Your task to perform on an android device: open app "DoorDash - Food Delivery" (install if not already installed) Image 0: 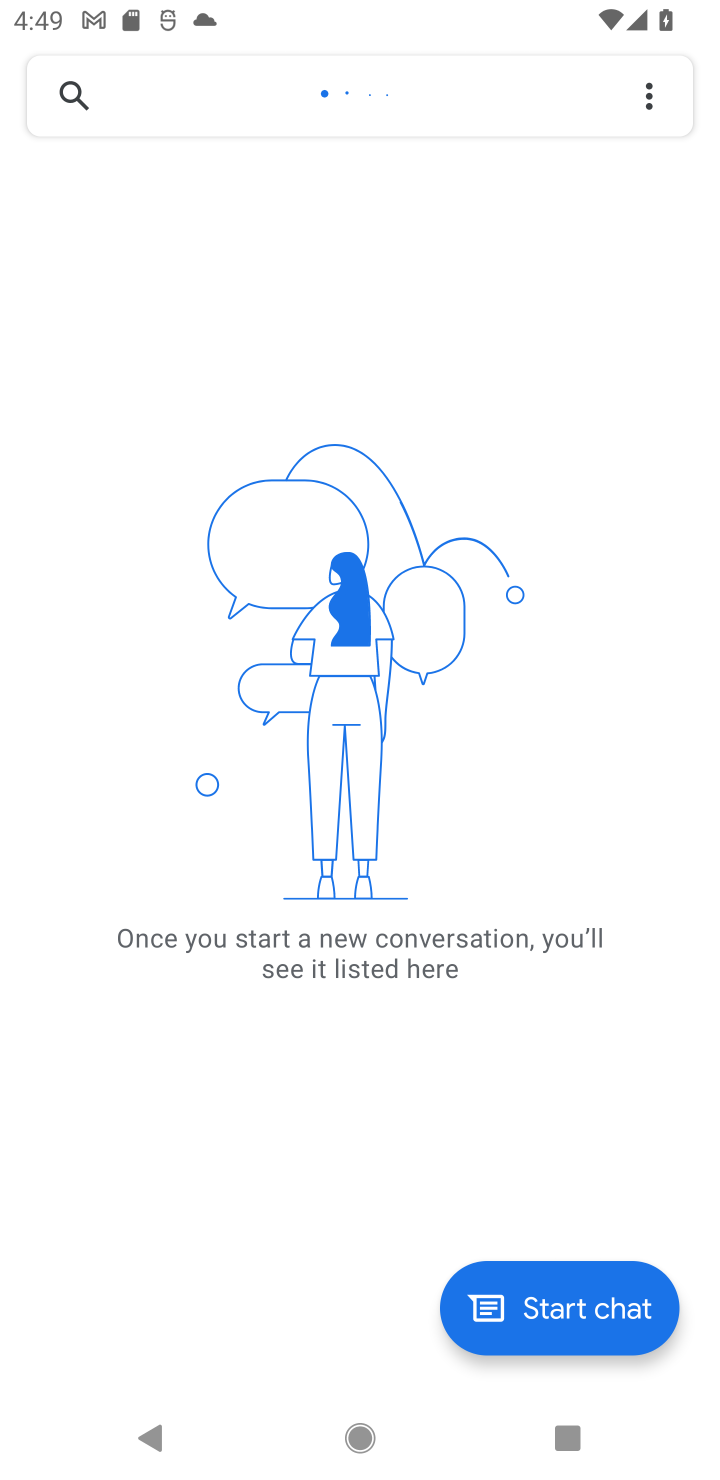
Step 0: press home button
Your task to perform on an android device: open app "DoorDash - Food Delivery" (install if not already installed) Image 1: 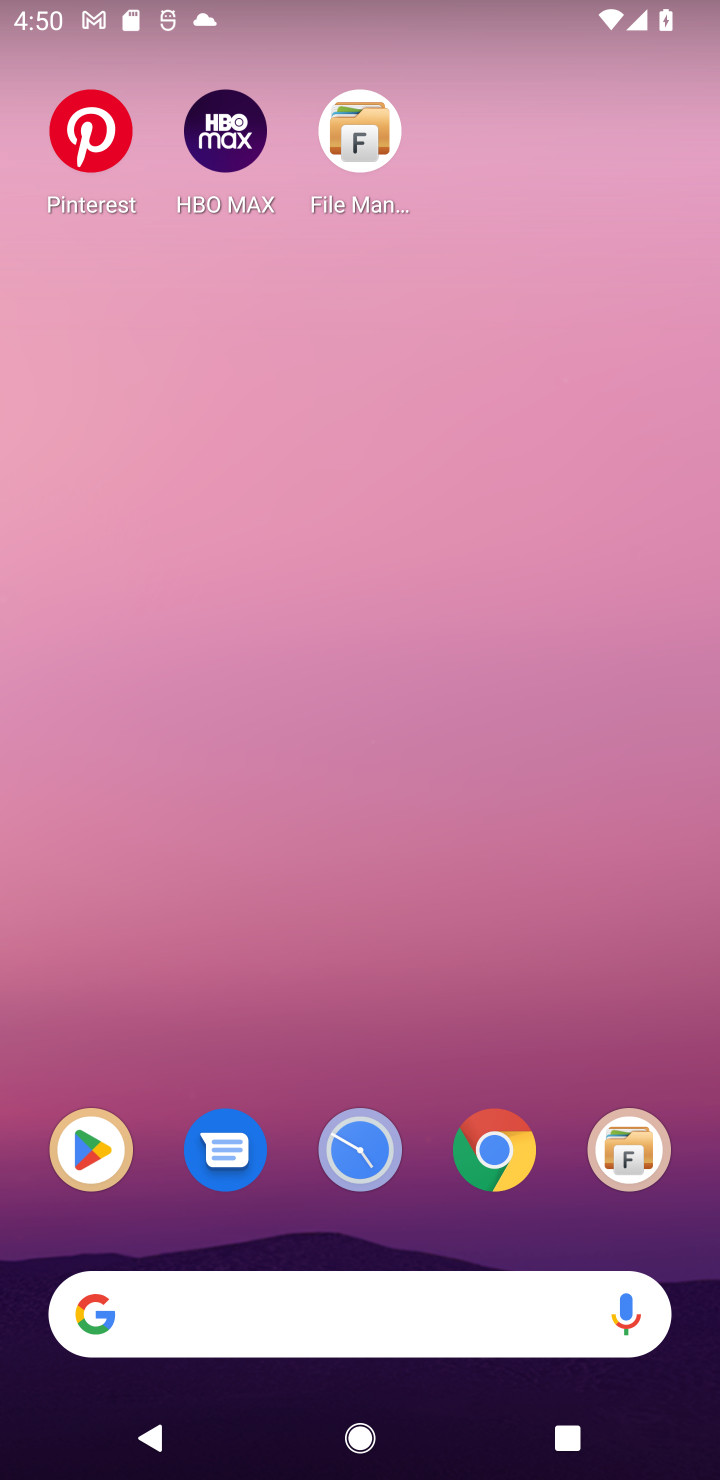
Step 1: click (83, 1150)
Your task to perform on an android device: open app "DoorDash - Food Delivery" (install if not already installed) Image 2: 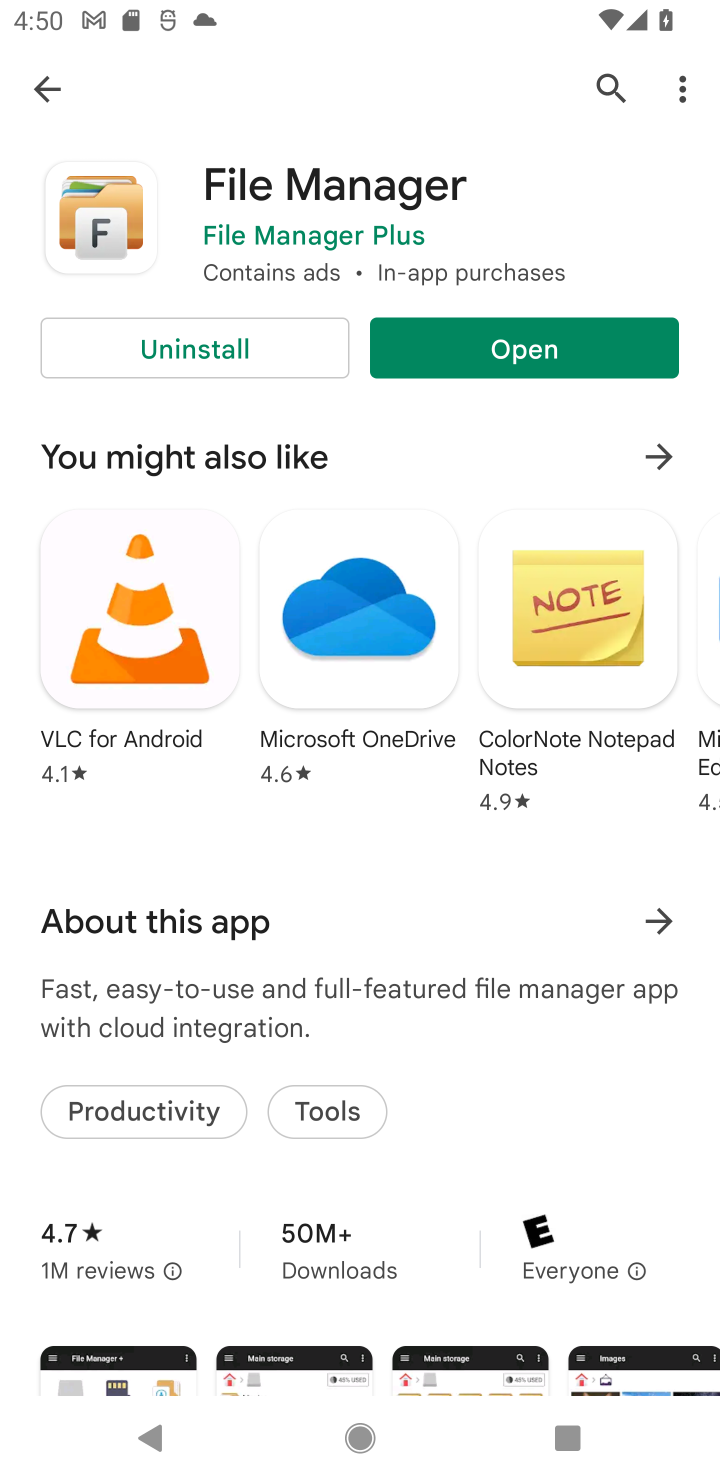
Step 2: click (606, 88)
Your task to perform on an android device: open app "DoorDash - Food Delivery" (install if not already installed) Image 3: 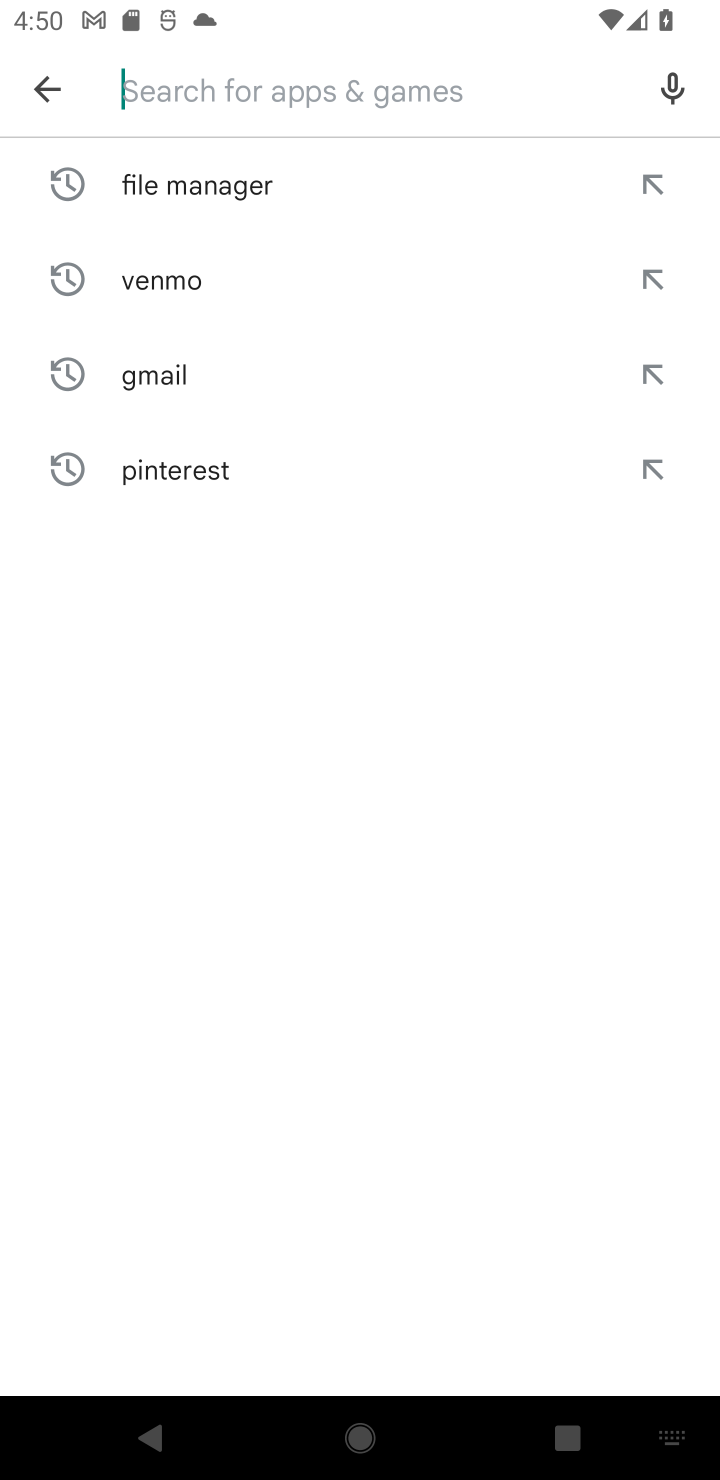
Step 3: type "DoorDash - Food Delivery"
Your task to perform on an android device: open app "DoorDash - Food Delivery" (install if not already installed) Image 4: 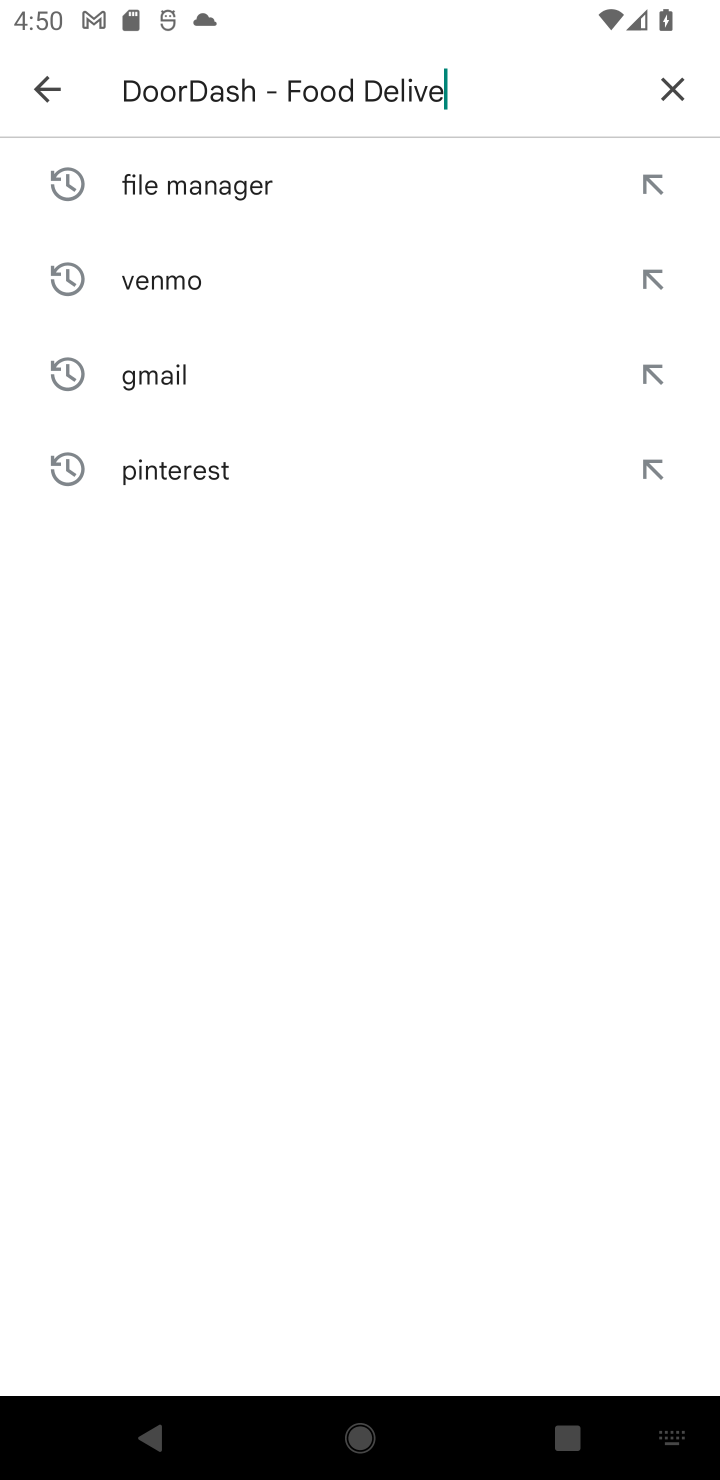
Step 4: type ""
Your task to perform on an android device: open app "DoorDash - Food Delivery" (install if not already installed) Image 5: 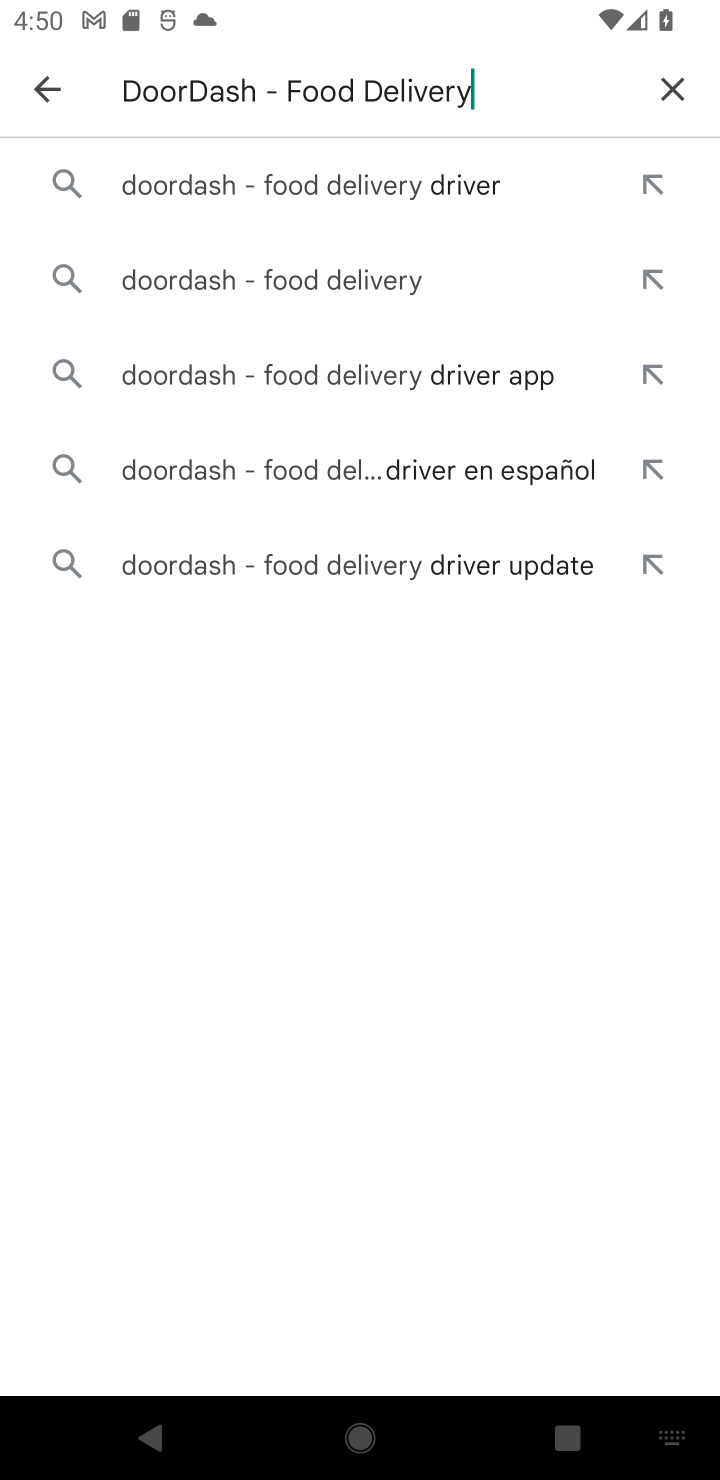
Step 5: click (330, 188)
Your task to perform on an android device: open app "DoorDash - Food Delivery" (install if not already installed) Image 6: 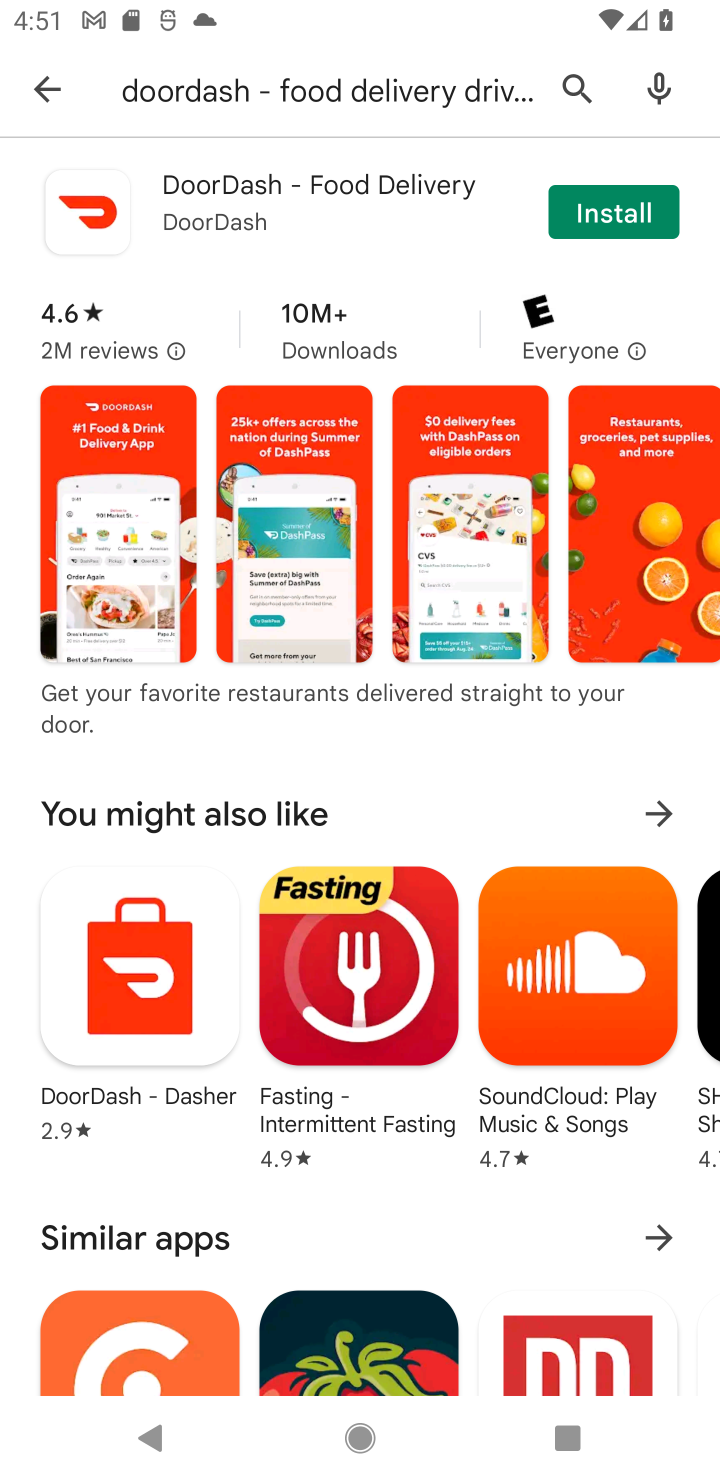
Step 6: click (609, 218)
Your task to perform on an android device: open app "DoorDash - Food Delivery" (install if not already installed) Image 7: 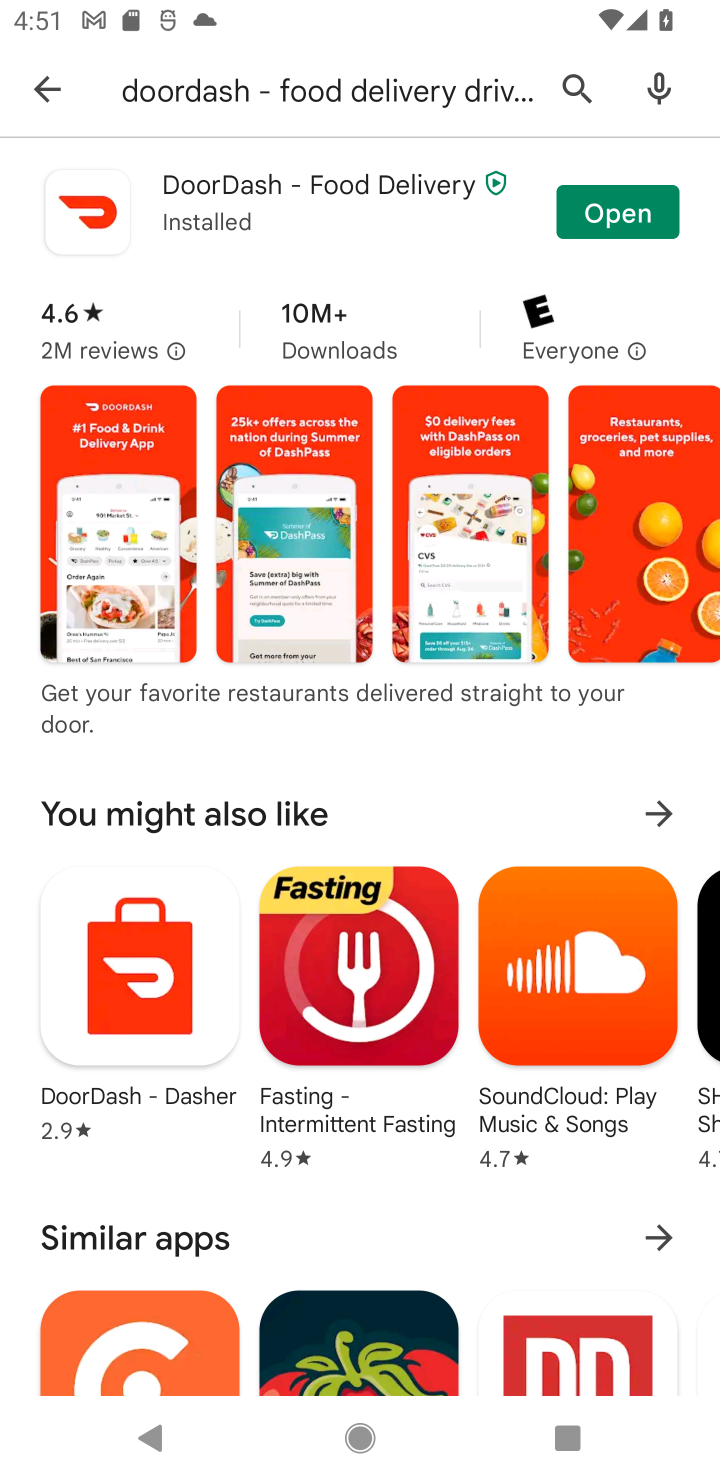
Step 7: task complete